Your task to perform on an android device: Open Maps and search for coffee Image 0: 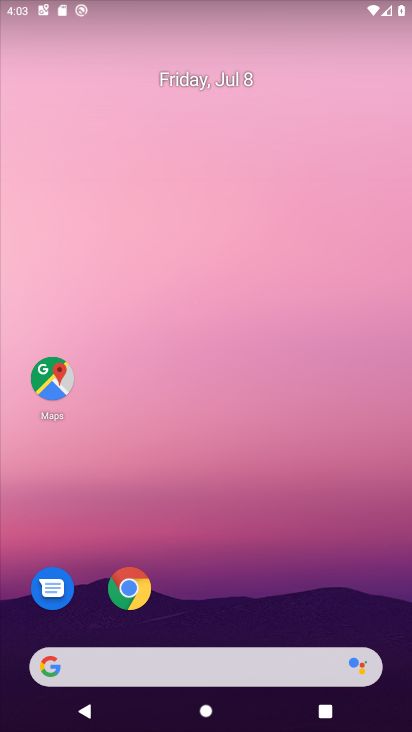
Step 0: click (65, 394)
Your task to perform on an android device: Open Maps and search for coffee Image 1: 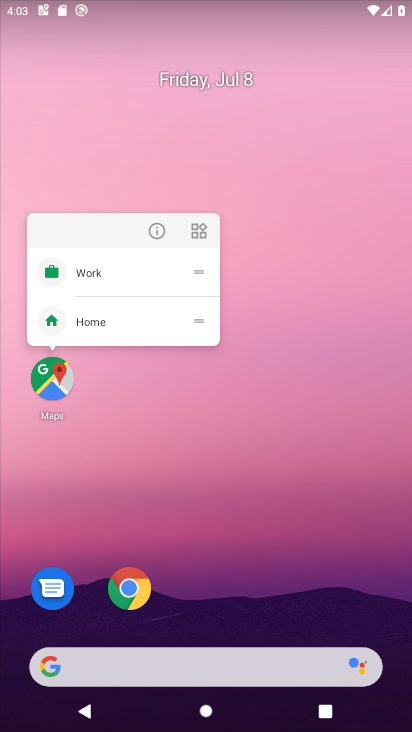
Step 1: click (44, 368)
Your task to perform on an android device: Open Maps and search for coffee Image 2: 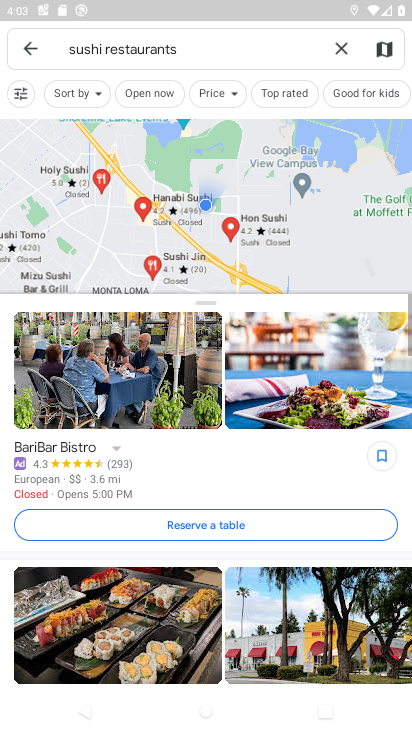
Step 2: click (333, 48)
Your task to perform on an android device: Open Maps and search for coffee Image 3: 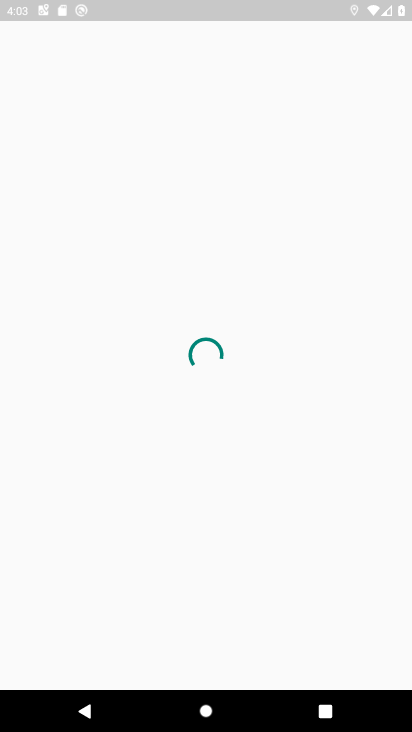
Step 3: click (174, 48)
Your task to perform on an android device: Open Maps and search for coffee Image 4: 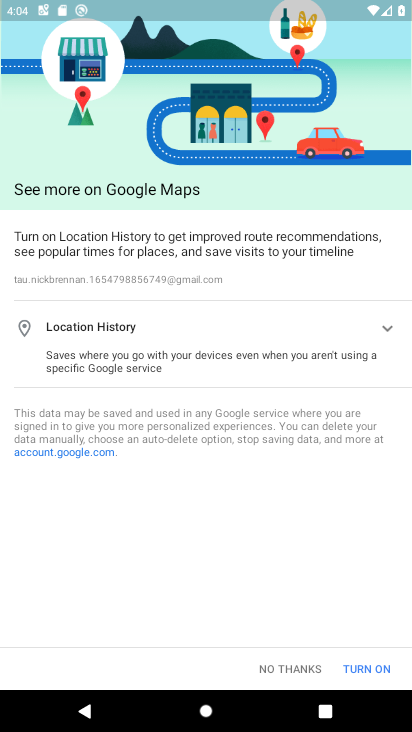
Step 4: type "coffee"
Your task to perform on an android device: Open Maps and search for coffee Image 5: 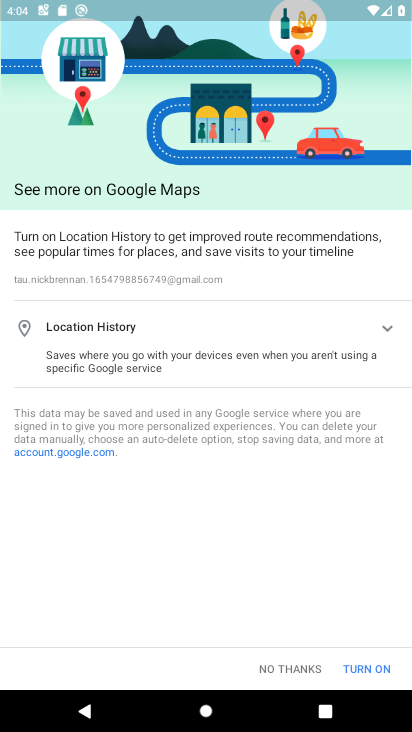
Step 5: click (286, 659)
Your task to perform on an android device: Open Maps and search for coffee Image 6: 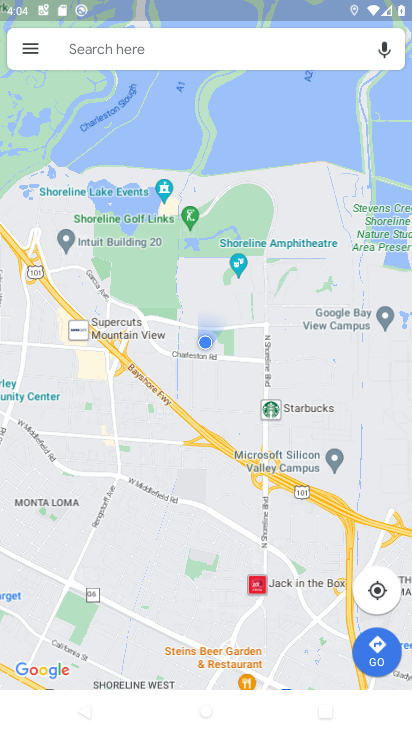
Step 6: click (215, 44)
Your task to perform on an android device: Open Maps and search for coffee Image 7: 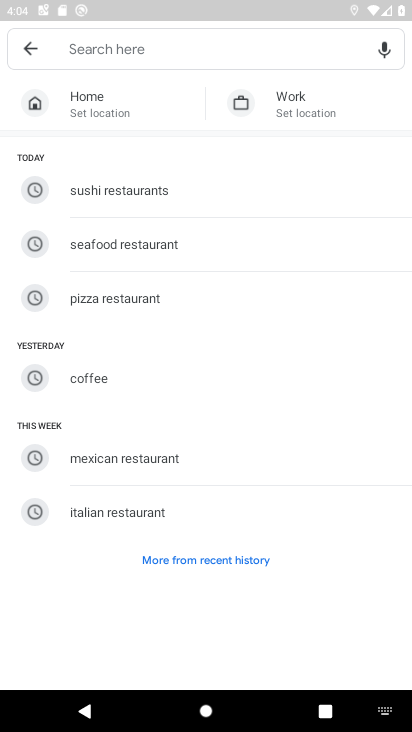
Step 7: type "coffee"
Your task to perform on an android device: Open Maps and search for coffee Image 8: 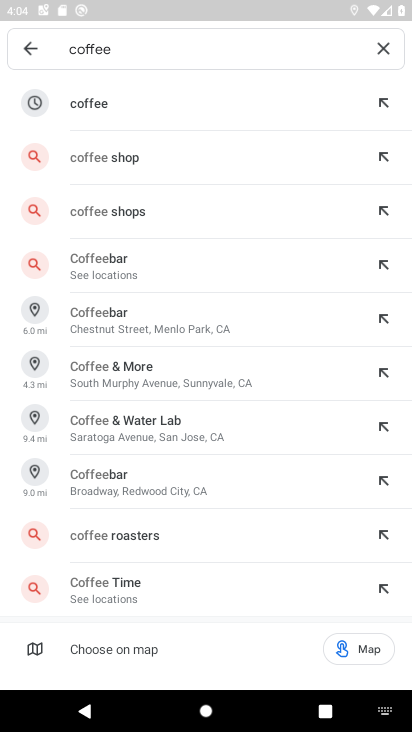
Step 8: click (163, 106)
Your task to perform on an android device: Open Maps and search for coffee Image 9: 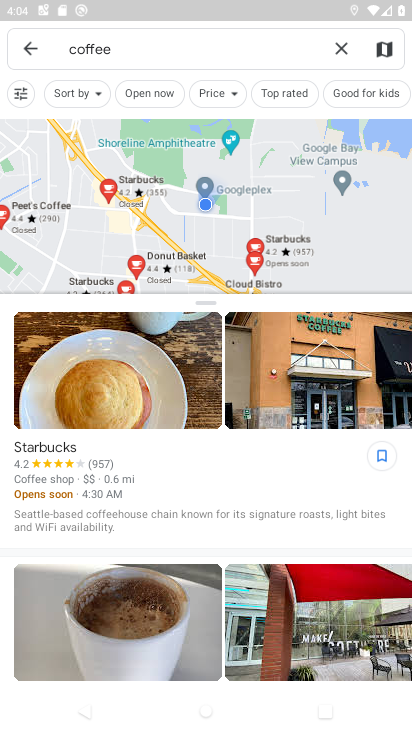
Step 9: task complete